Your task to perform on an android device: Open Chrome and go to settings Image 0: 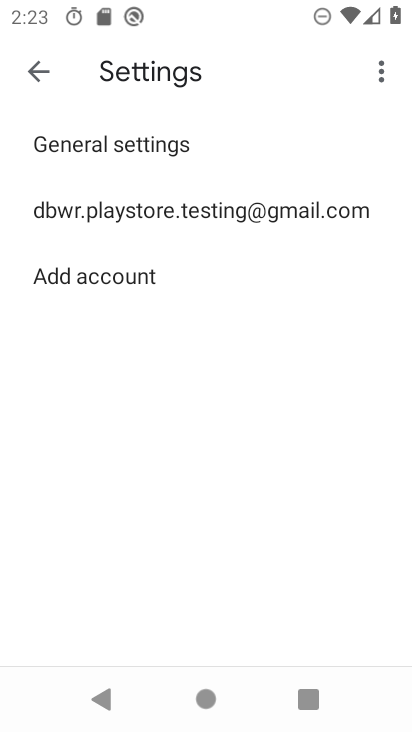
Step 0: press home button
Your task to perform on an android device: Open Chrome and go to settings Image 1: 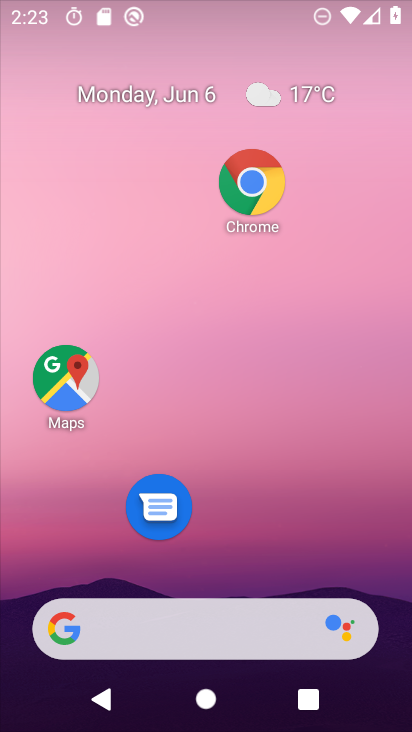
Step 1: drag from (214, 650) to (113, 174)
Your task to perform on an android device: Open Chrome and go to settings Image 2: 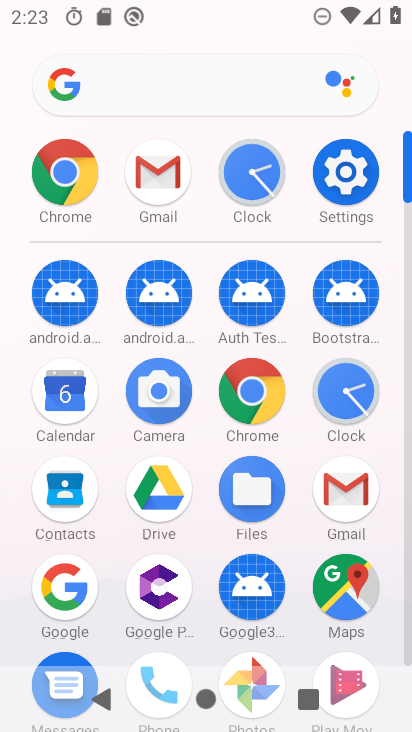
Step 2: click (80, 174)
Your task to perform on an android device: Open Chrome and go to settings Image 3: 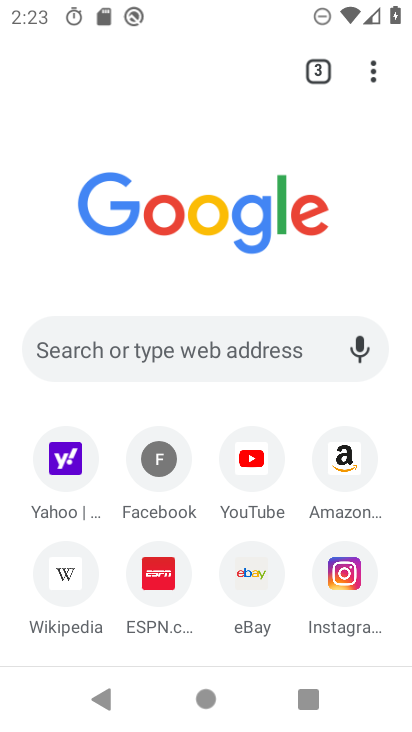
Step 3: click (365, 94)
Your task to perform on an android device: Open Chrome and go to settings Image 4: 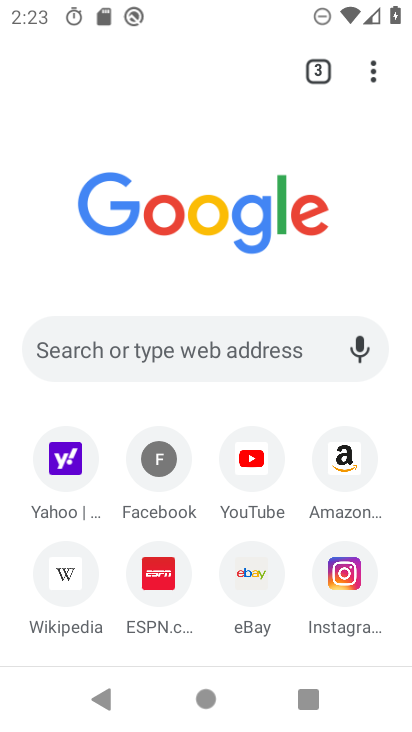
Step 4: click (368, 70)
Your task to perform on an android device: Open Chrome and go to settings Image 5: 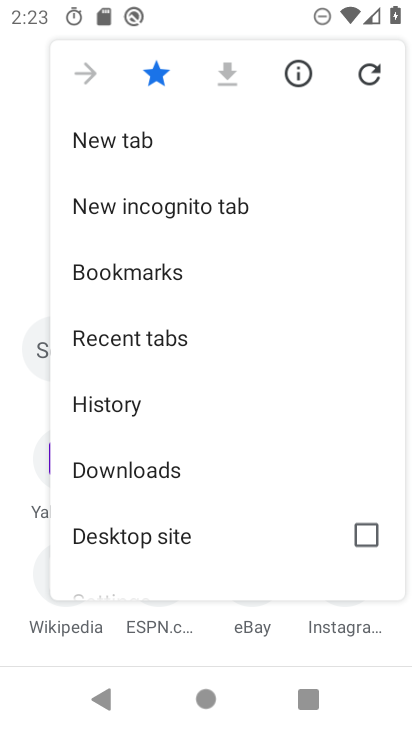
Step 5: drag from (113, 520) to (51, 393)
Your task to perform on an android device: Open Chrome and go to settings Image 6: 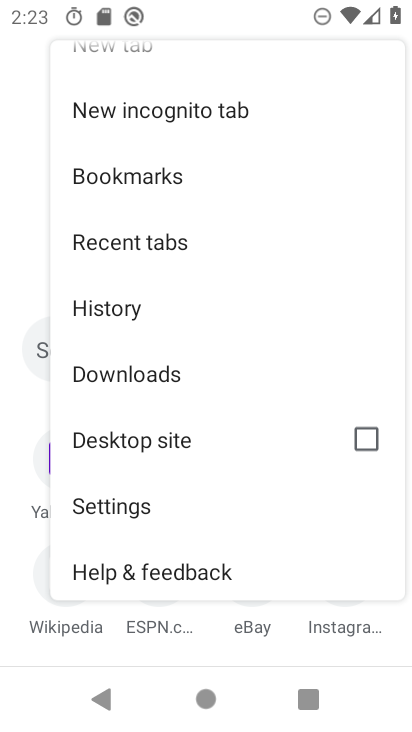
Step 6: click (123, 503)
Your task to perform on an android device: Open Chrome and go to settings Image 7: 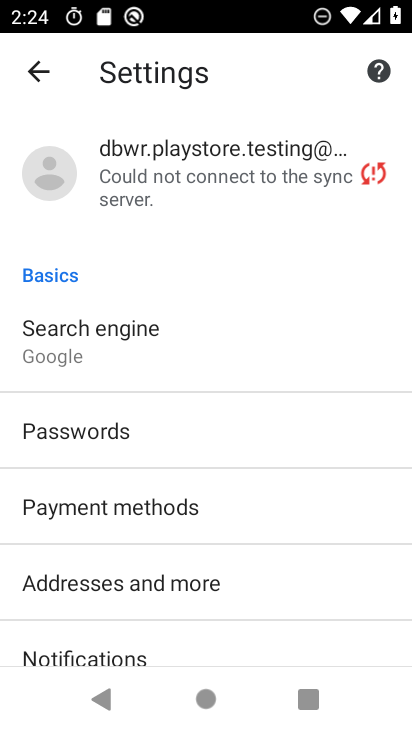
Step 7: task complete